Your task to perform on an android device: Open notification settings Image 0: 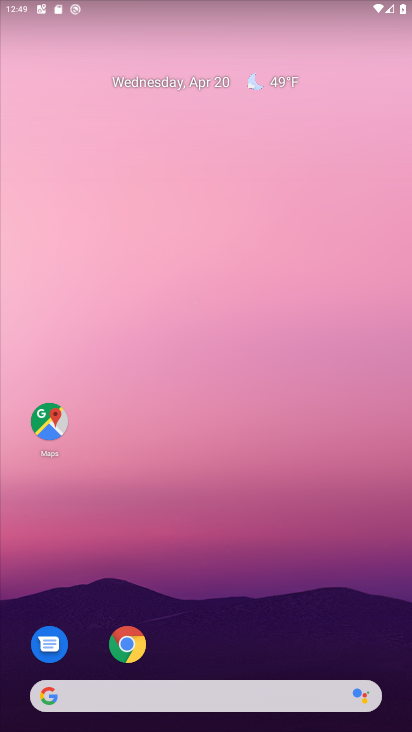
Step 0: drag from (227, 498) to (252, 122)
Your task to perform on an android device: Open notification settings Image 1: 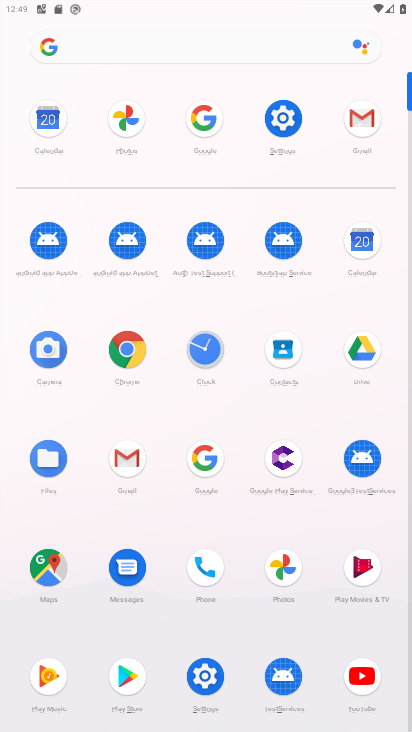
Step 1: click (287, 119)
Your task to perform on an android device: Open notification settings Image 2: 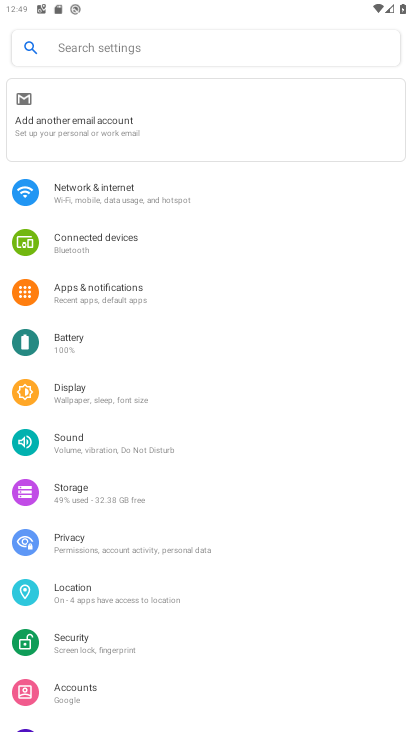
Step 2: click (156, 296)
Your task to perform on an android device: Open notification settings Image 3: 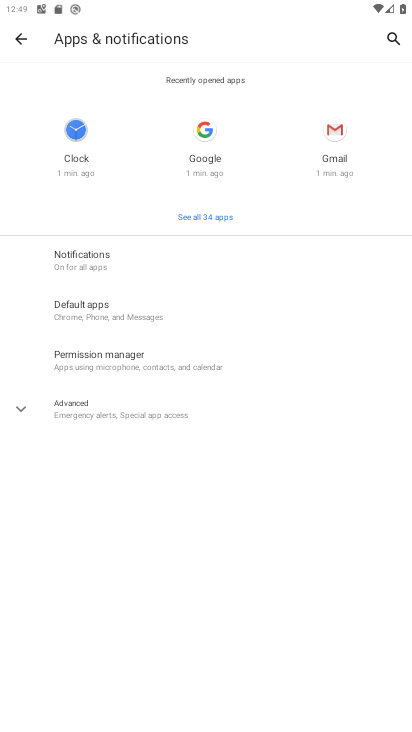
Step 3: click (114, 252)
Your task to perform on an android device: Open notification settings Image 4: 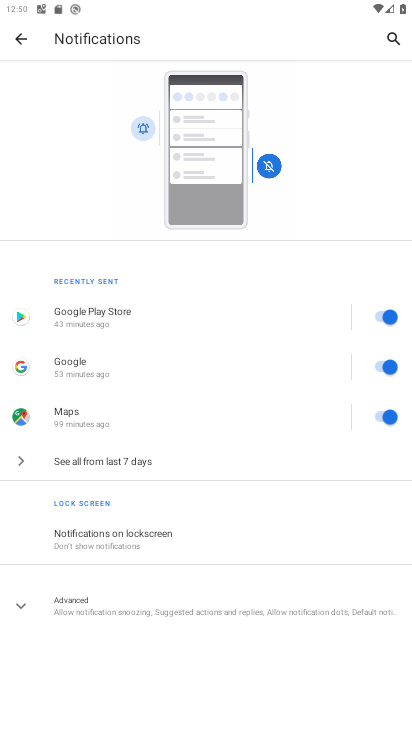
Step 4: task complete